Your task to perform on an android device: turn pop-ups off in chrome Image 0: 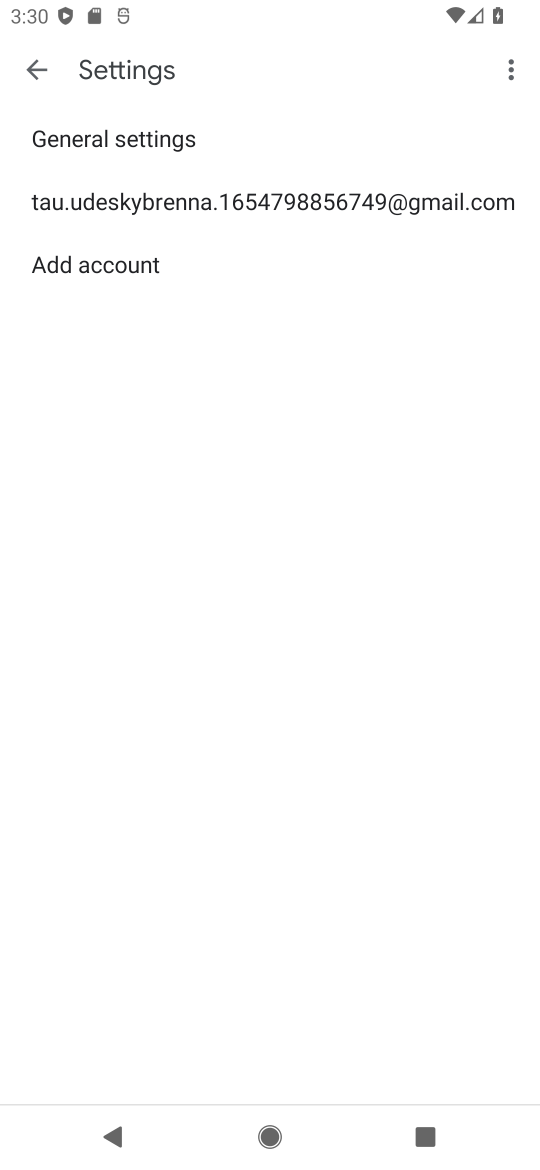
Step 0: press home button
Your task to perform on an android device: turn pop-ups off in chrome Image 1: 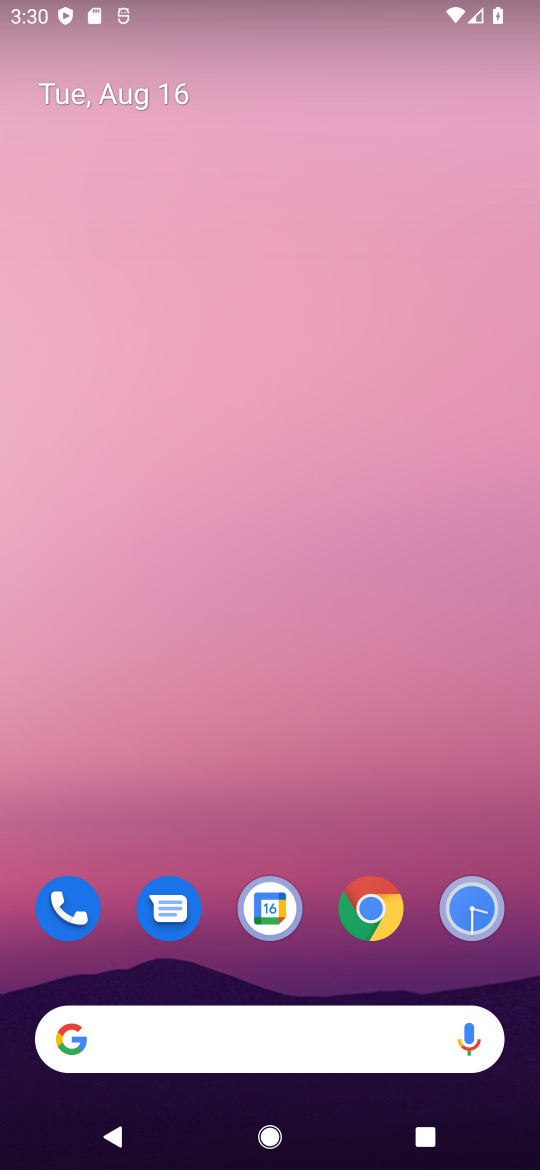
Step 1: drag from (313, 963) to (357, 71)
Your task to perform on an android device: turn pop-ups off in chrome Image 2: 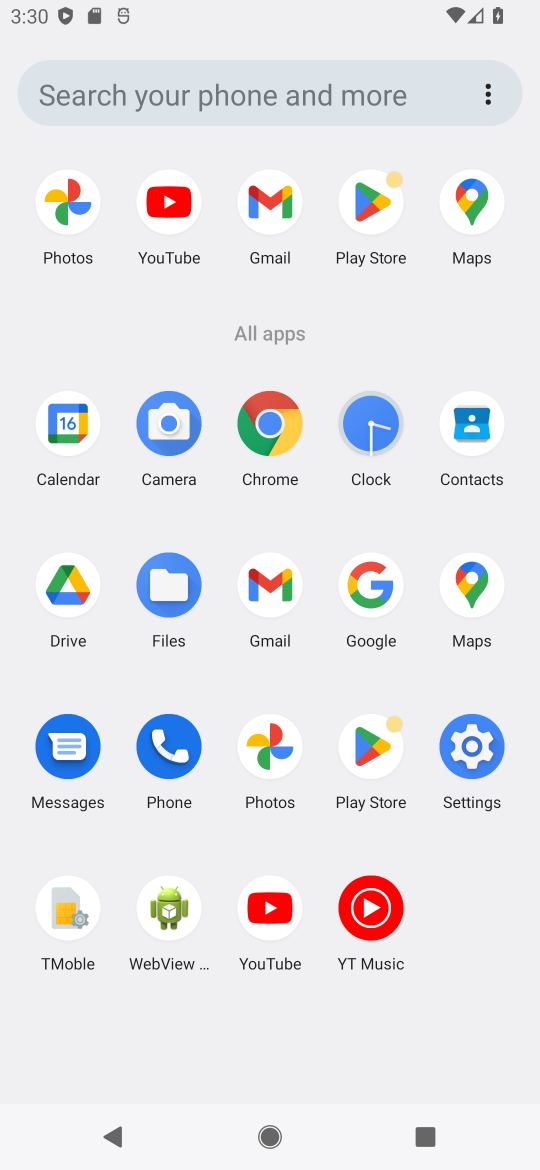
Step 2: click (269, 412)
Your task to perform on an android device: turn pop-ups off in chrome Image 3: 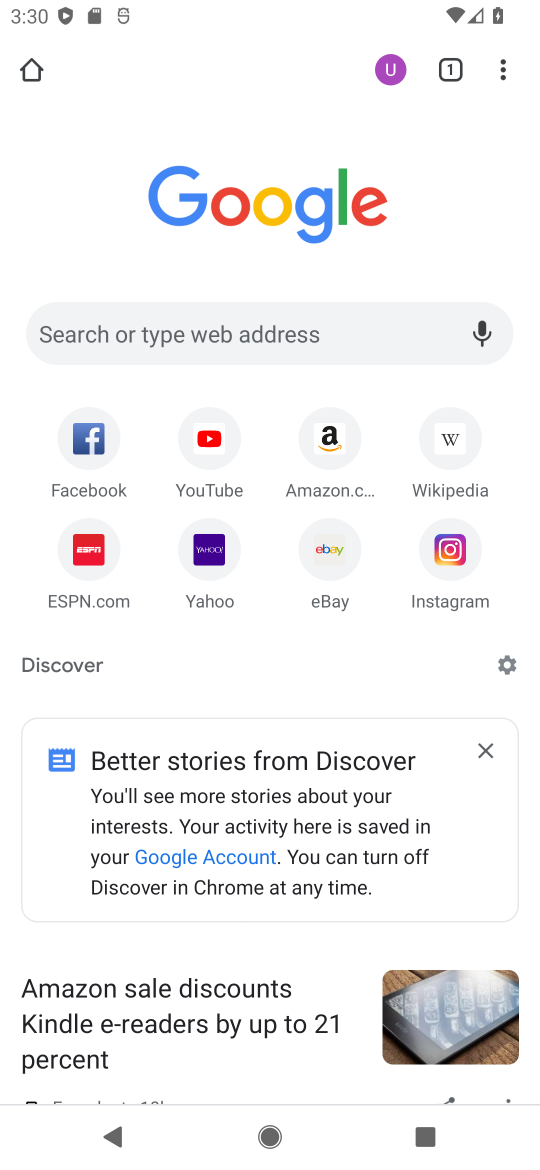
Step 3: click (506, 65)
Your task to perform on an android device: turn pop-ups off in chrome Image 4: 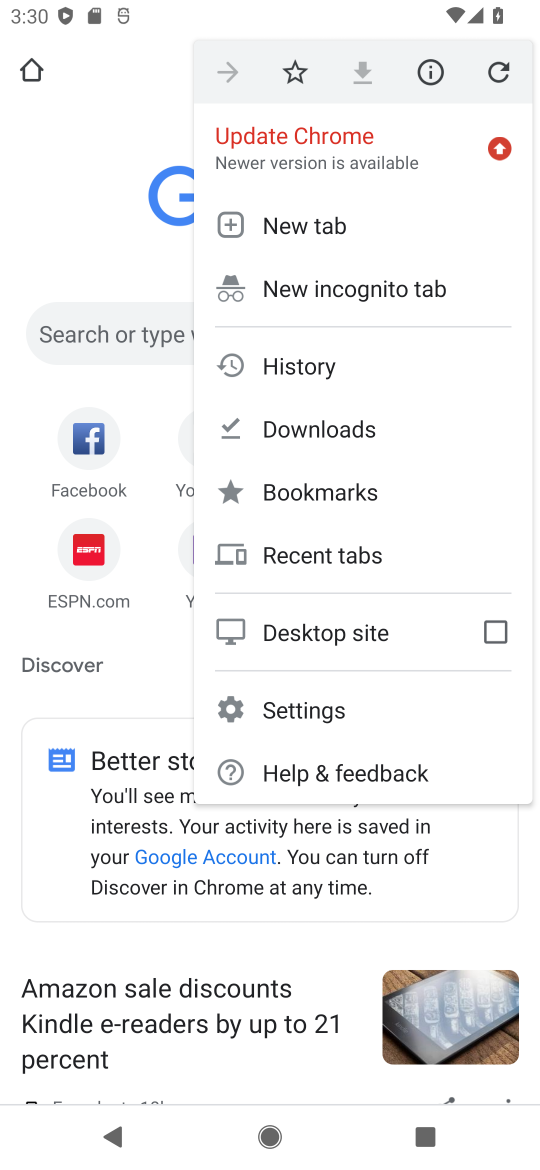
Step 4: click (348, 713)
Your task to perform on an android device: turn pop-ups off in chrome Image 5: 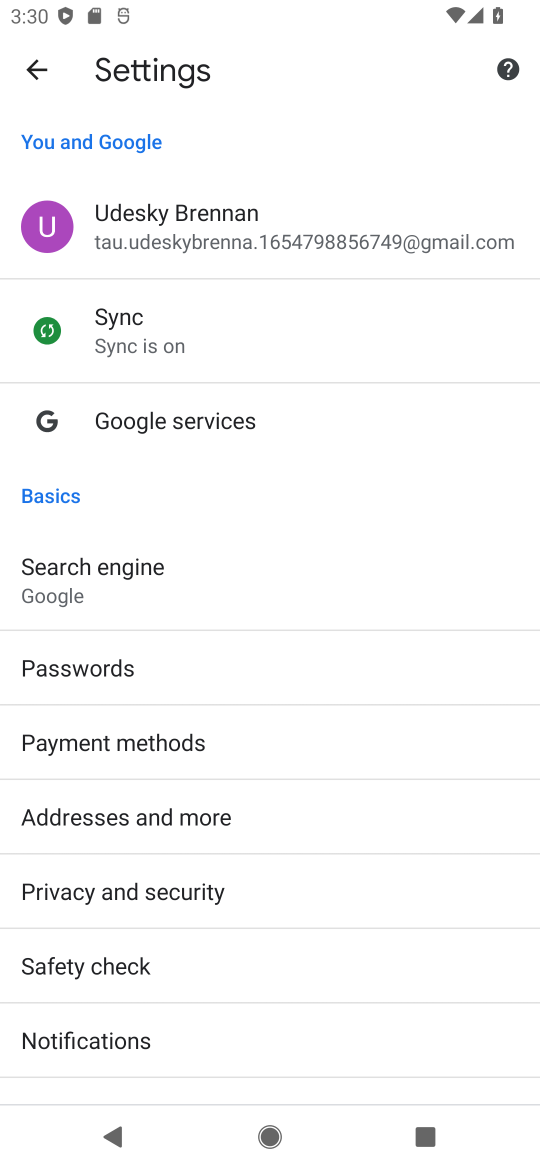
Step 5: drag from (246, 1021) to (291, 206)
Your task to perform on an android device: turn pop-ups off in chrome Image 6: 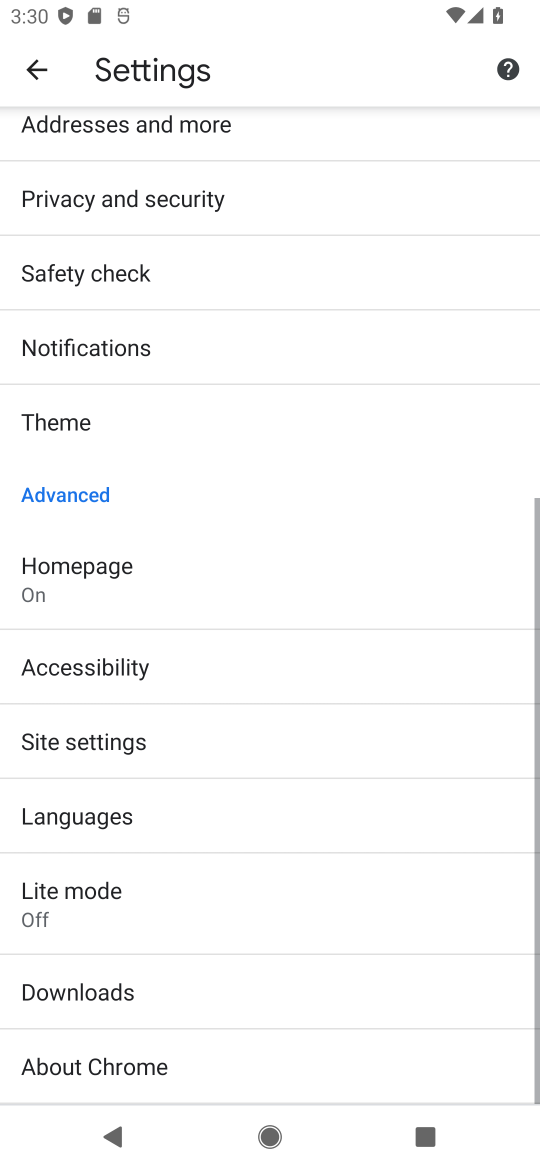
Step 6: click (169, 736)
Your task to perform on an android device: turn pop-ups off in chrome Image 7: 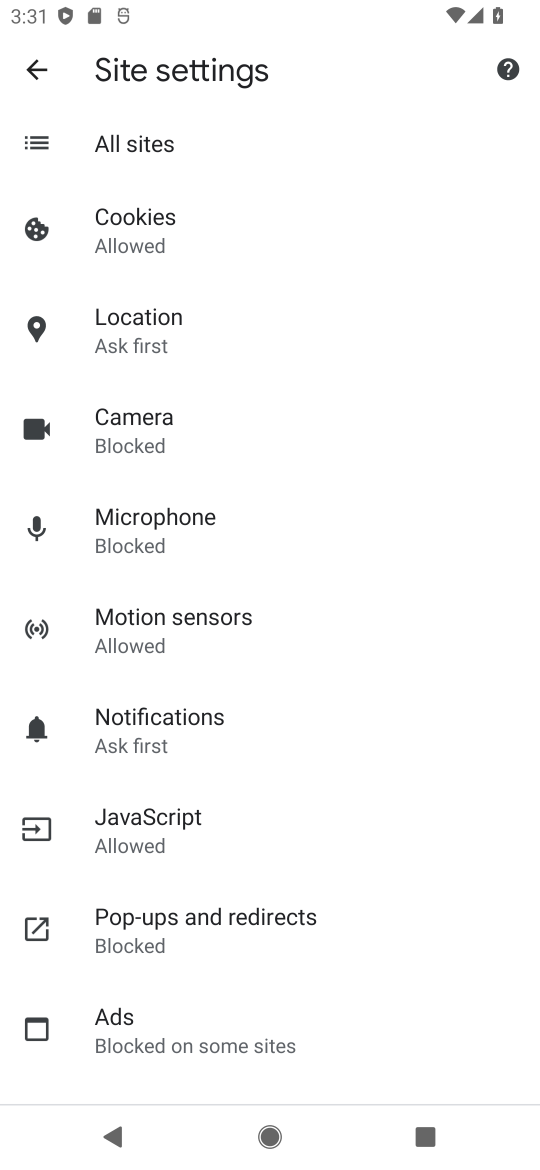
Step 7: click (192, 934)
Your task to perform on an android device: turn pop-ups off in chrome Image 8: 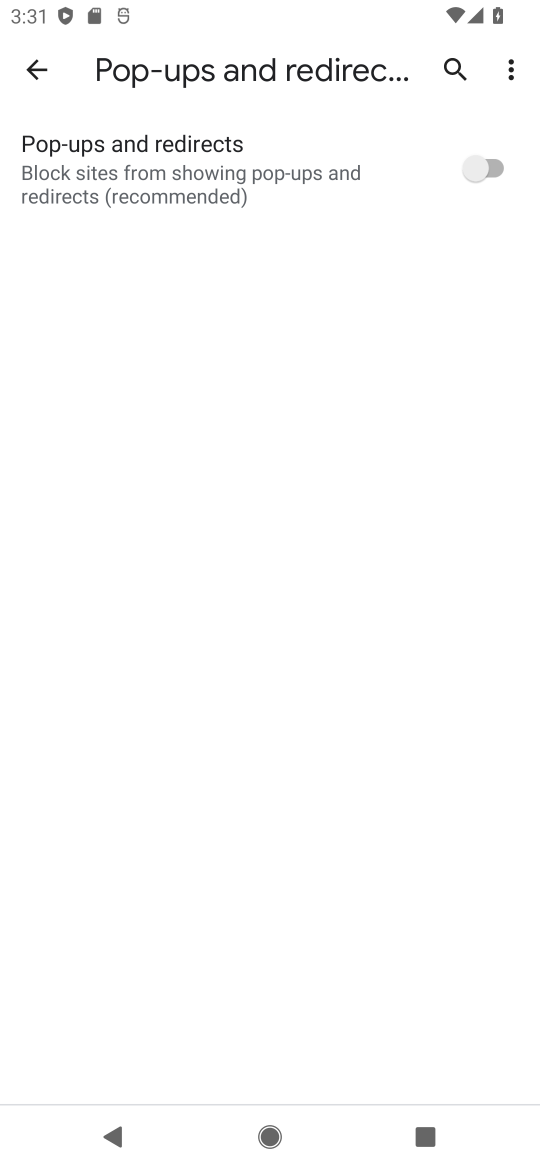
Step 8: task complete